Your task to perform on an android device: turn on bluetooth scan Image 0: 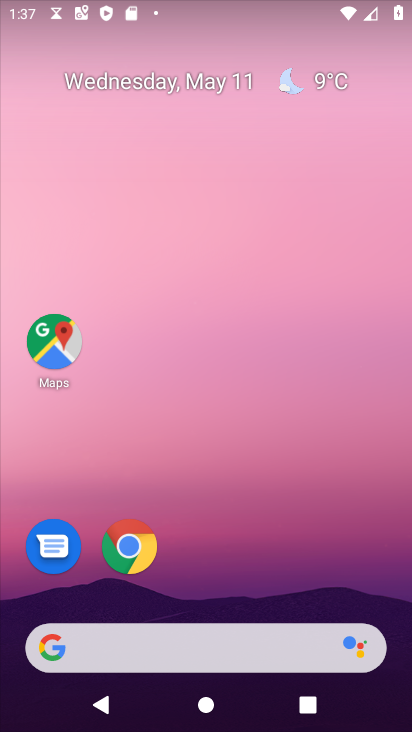
Step 0: drag from (240, 574) to (346, 52)
Your task to perform on an android device: turn on bluetooth scan Image 1: 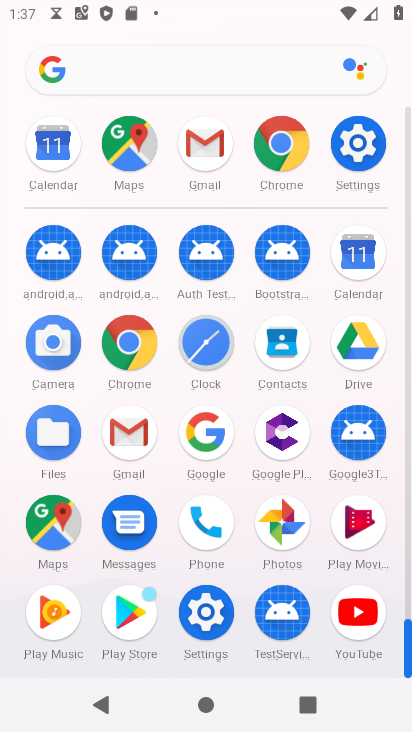
Step 1: click (336, 144)
Your task to perform on an android device: turn on bluetooth scan Image 2: 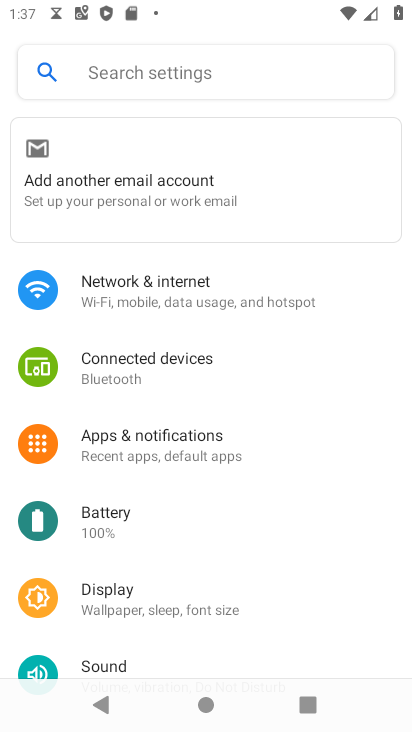
Step 2: click (346, 146)
Your task to perform on an android device: turn on bluetooth scan Image 3: 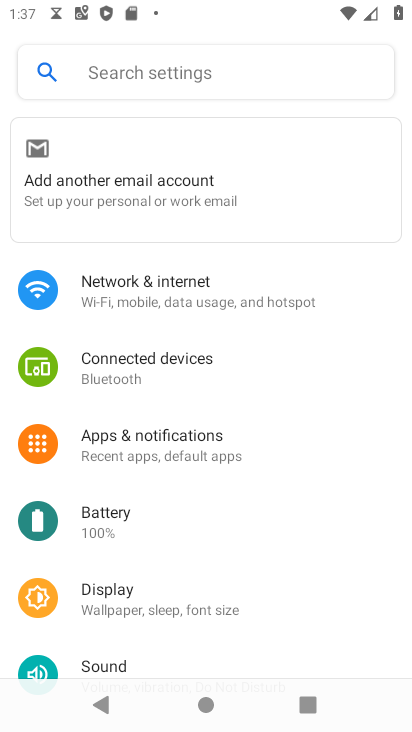
Step 3: click (346, 146)
Your task to perform on an android device: turn on bluetooth scan Image 4: 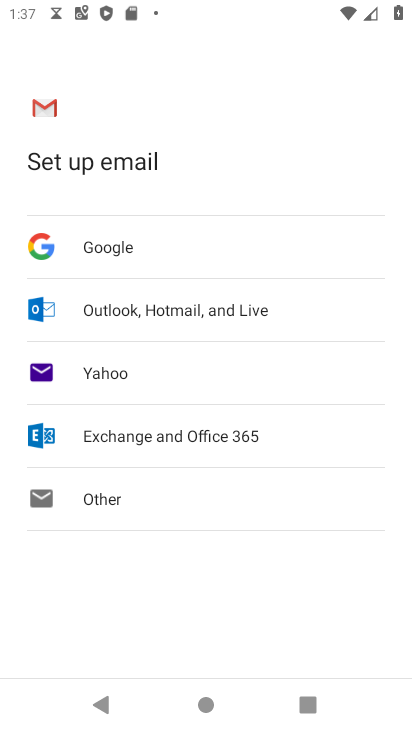
Step 4: drag from (294, 373) to (355, 112)
Your task to perform on an android device: turn on bluetooth scan Image 5: 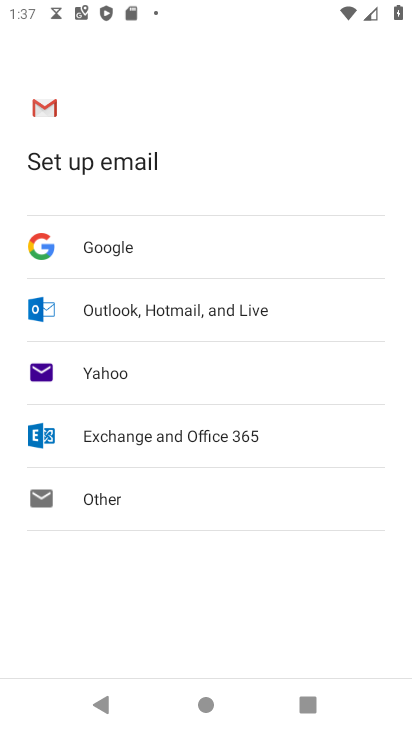
Step 5: press back button
Your task to perform on an android device: turn on bluetooth scan Image 6: 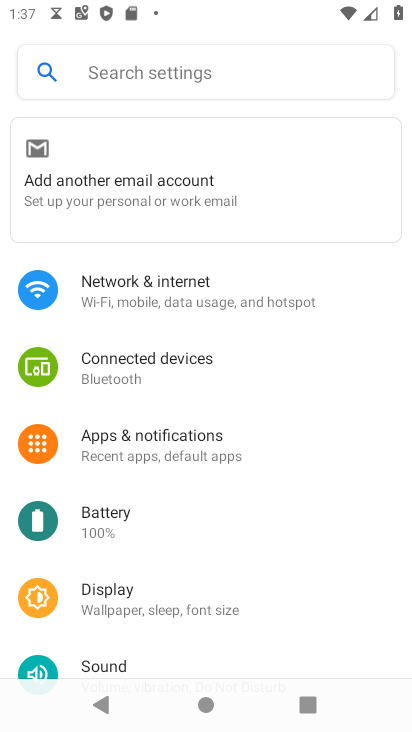
Step 6: drag from (173, 638) to (183, 178)
Your task to perform on an android device: turn on bluetooth scan Image 7: 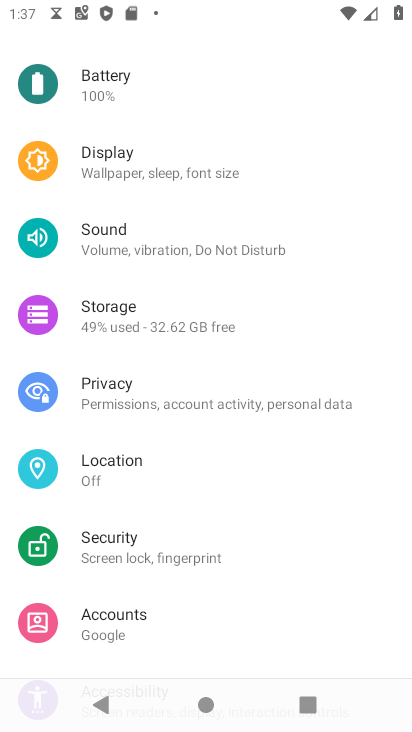
Step 7: drag from (205, 294) to (253, 132)
Your task to perform on an android device: turn on bluetooth scan Image 8: 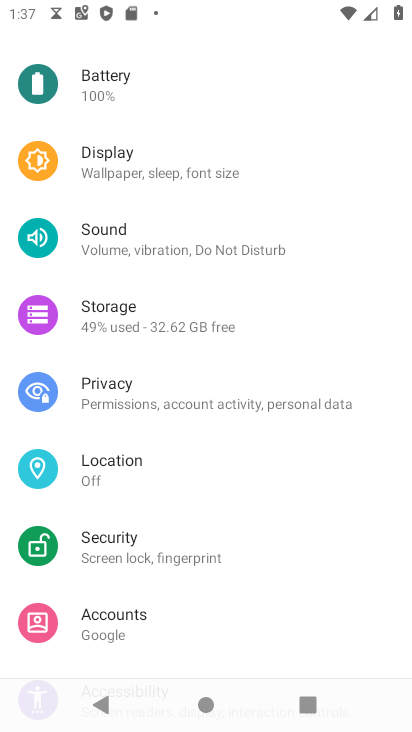
Step 8: click (147, 460)
Your task to perform on an android device: turn on bluetooth scan Image 9: 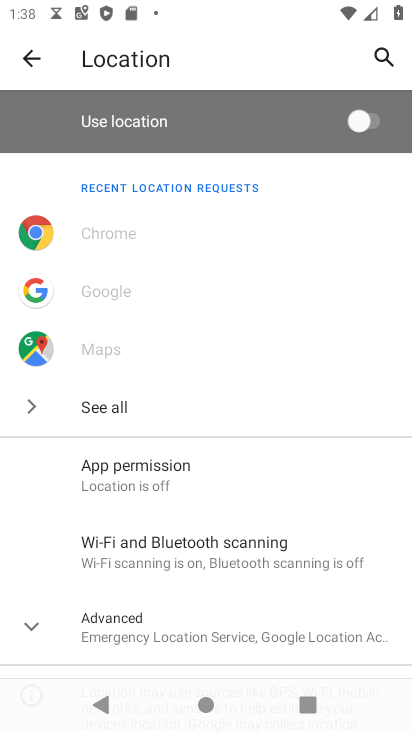
Step 9: click (305, 546)
Your task to perform on an android device: turn on bluetooth scan Image 10: 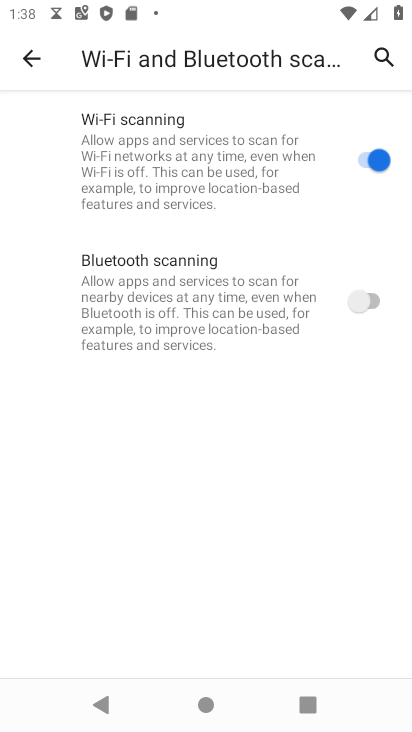
Step 10: click (378, 303)
Your task to perform on an android device: turn on bluetooth scan Image 11: 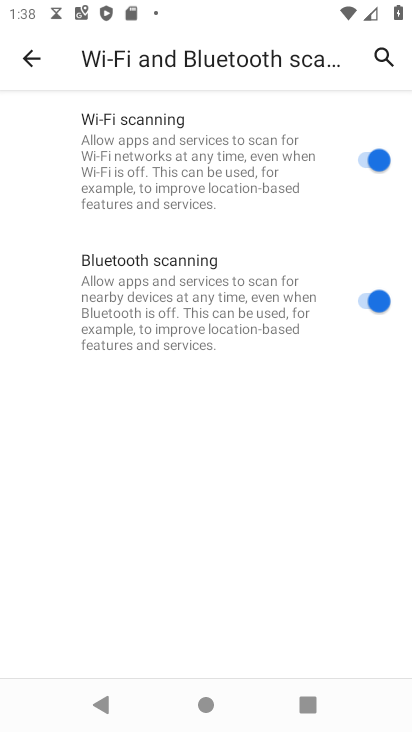
Step 11: task complete